Your task to perform on an android device: Go to ESPN.com Image 0: 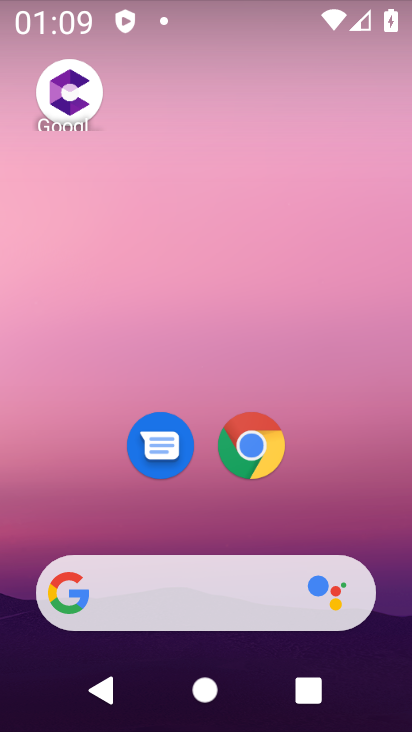
Step 0: click (219, 606)
Your task to perform on an android device: Go to ESPN.com Image 1: 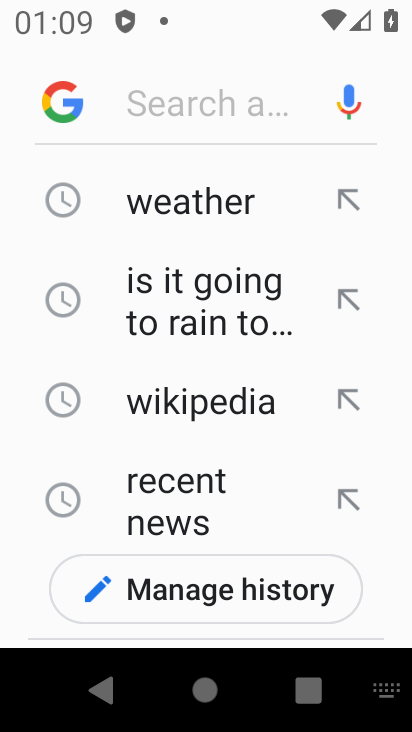
Step 1: type "espn.com"
Your task to perform on an android device: Go to ESPN.com Image 2: 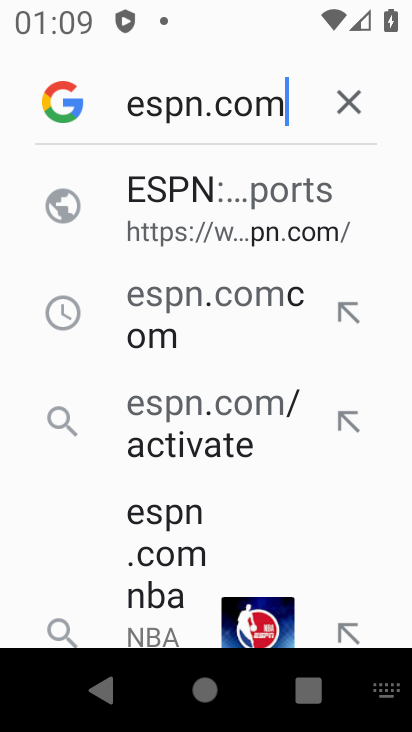
Step 2: click (203, 208)
Your task to perform on an android device: Go to ESPN.com Image 3: 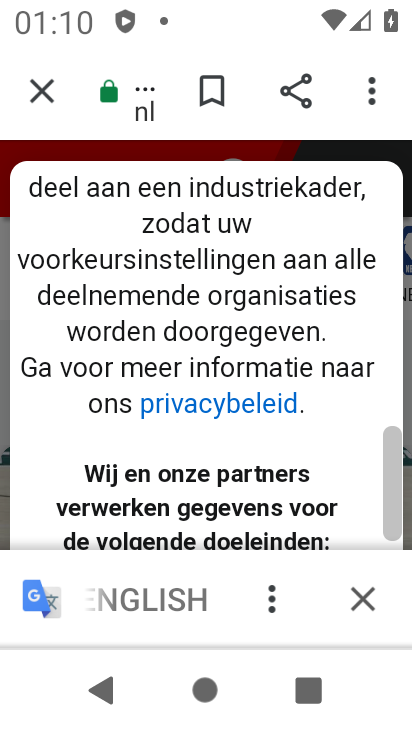
Step 3: task complete